Your task to perform on an android device: Go to calendar. Show me events next week Image 0: 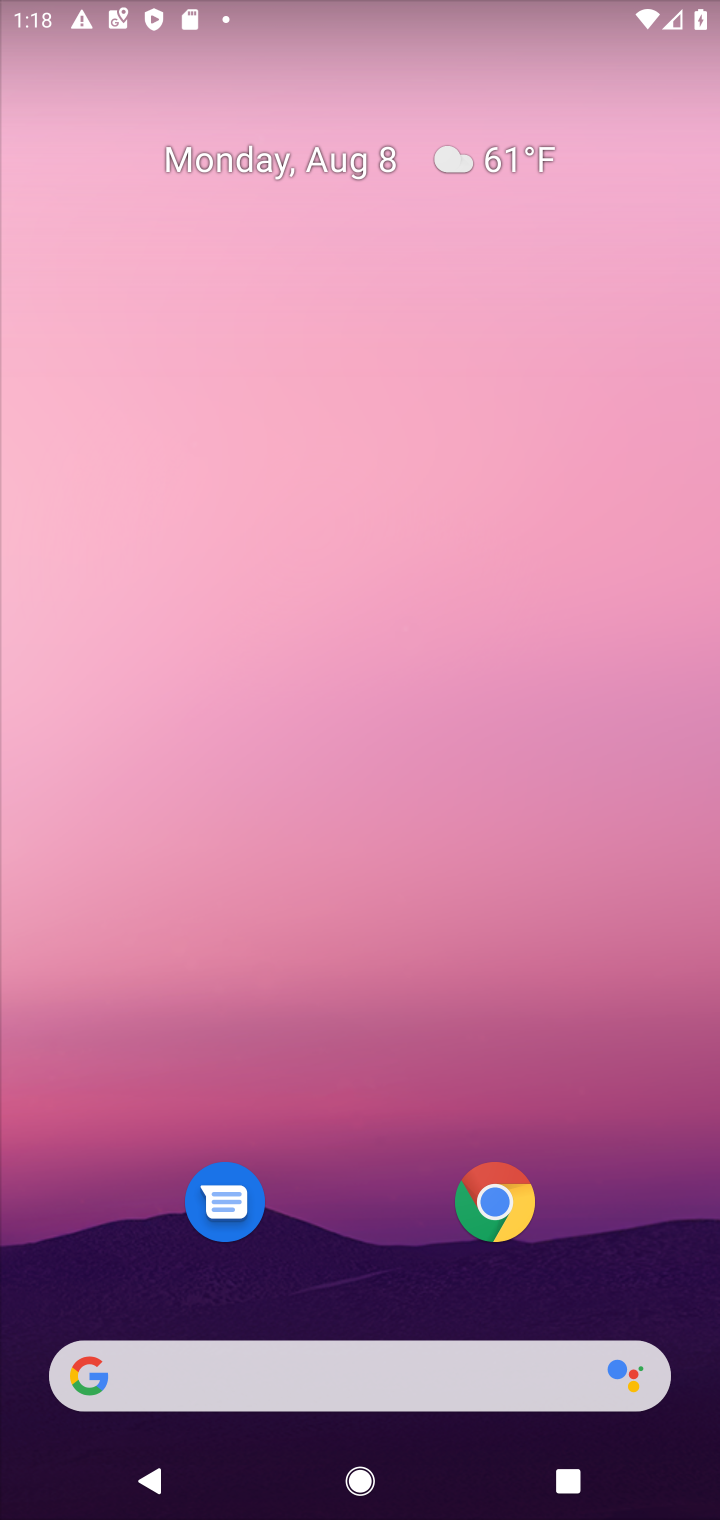
Step 0: press home button
Your task to perform on an android device: Go to calendar. Show me events next week Image 1: 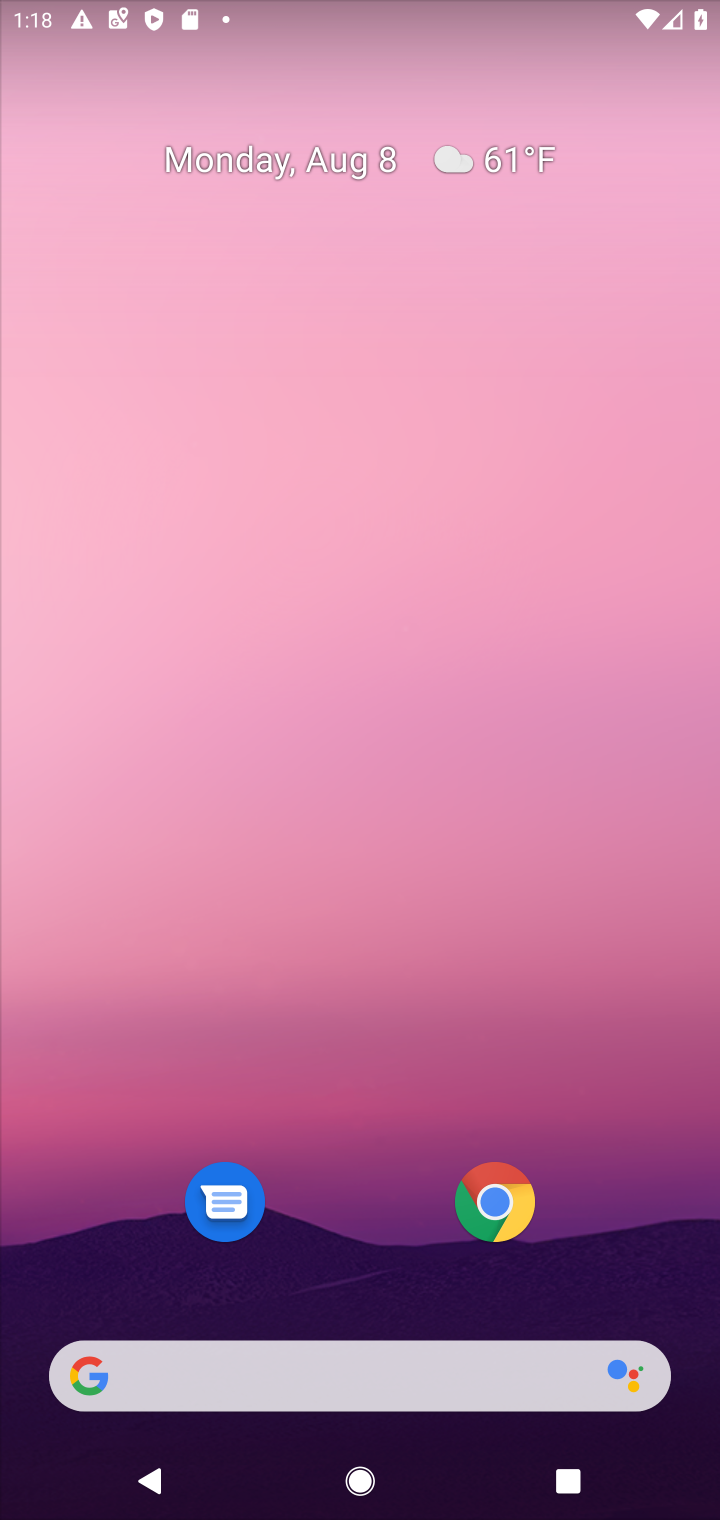
Step 1: drag from (400, 1118) to (443, 82)
Your task to perform on an android device: Go to calendar. Show me events next week Image 2: 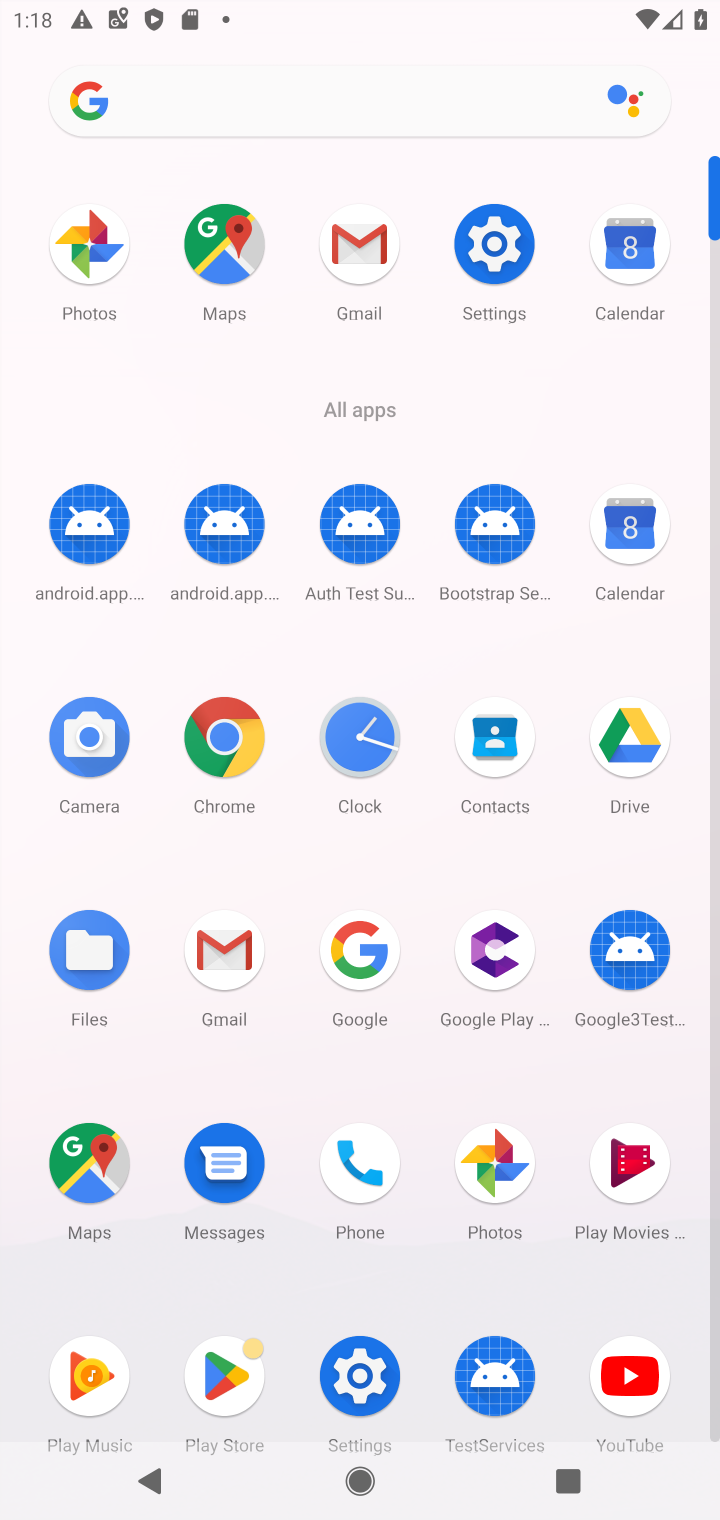
Step 2: click (625, 541)
Your task to perform on an android device: Go to calendar. Show me events next week Image 3: 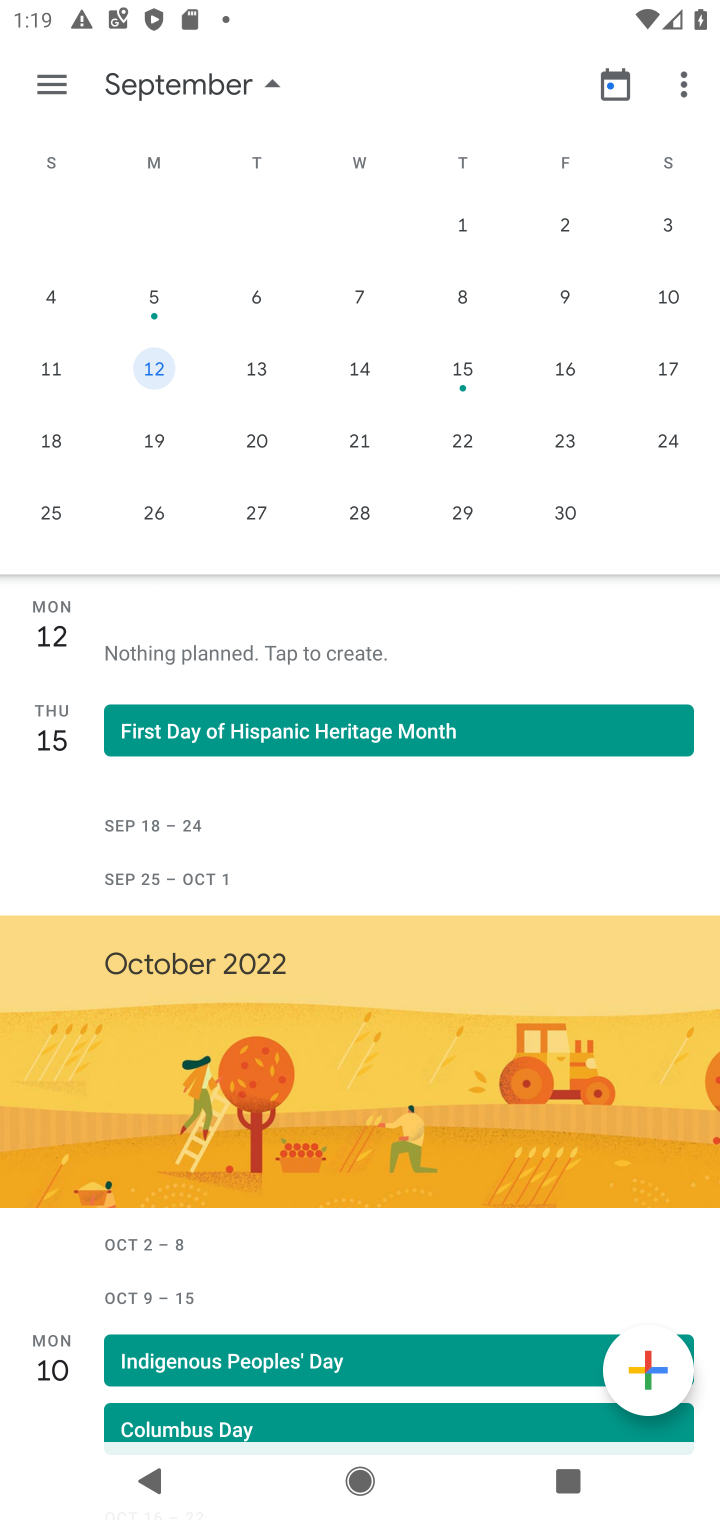
Step 3: task complete